Your task to perform on an android device: clear all cookies in the chrome app Image 0: 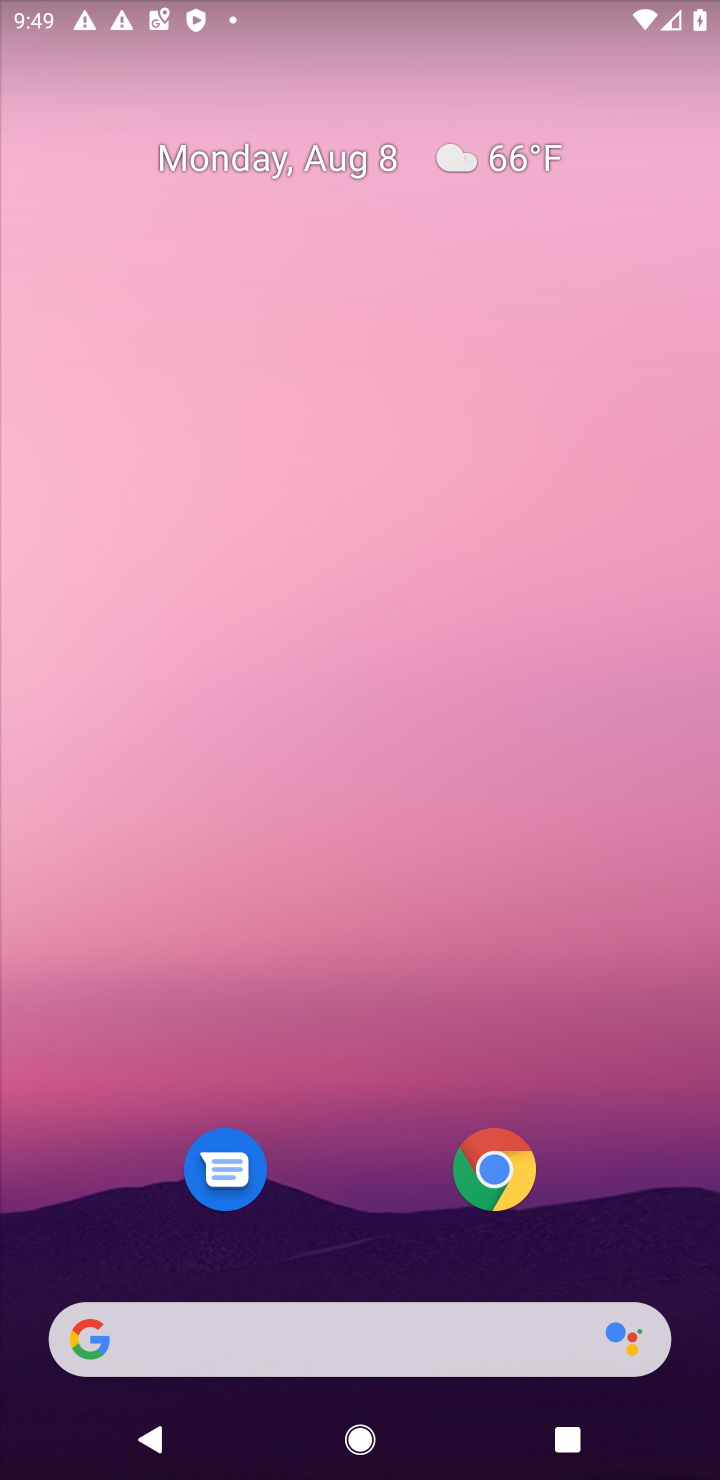
Step 0: click (493, 1159)
Your task to perform on an android device: clear all cookies in the chrome app Image 1: 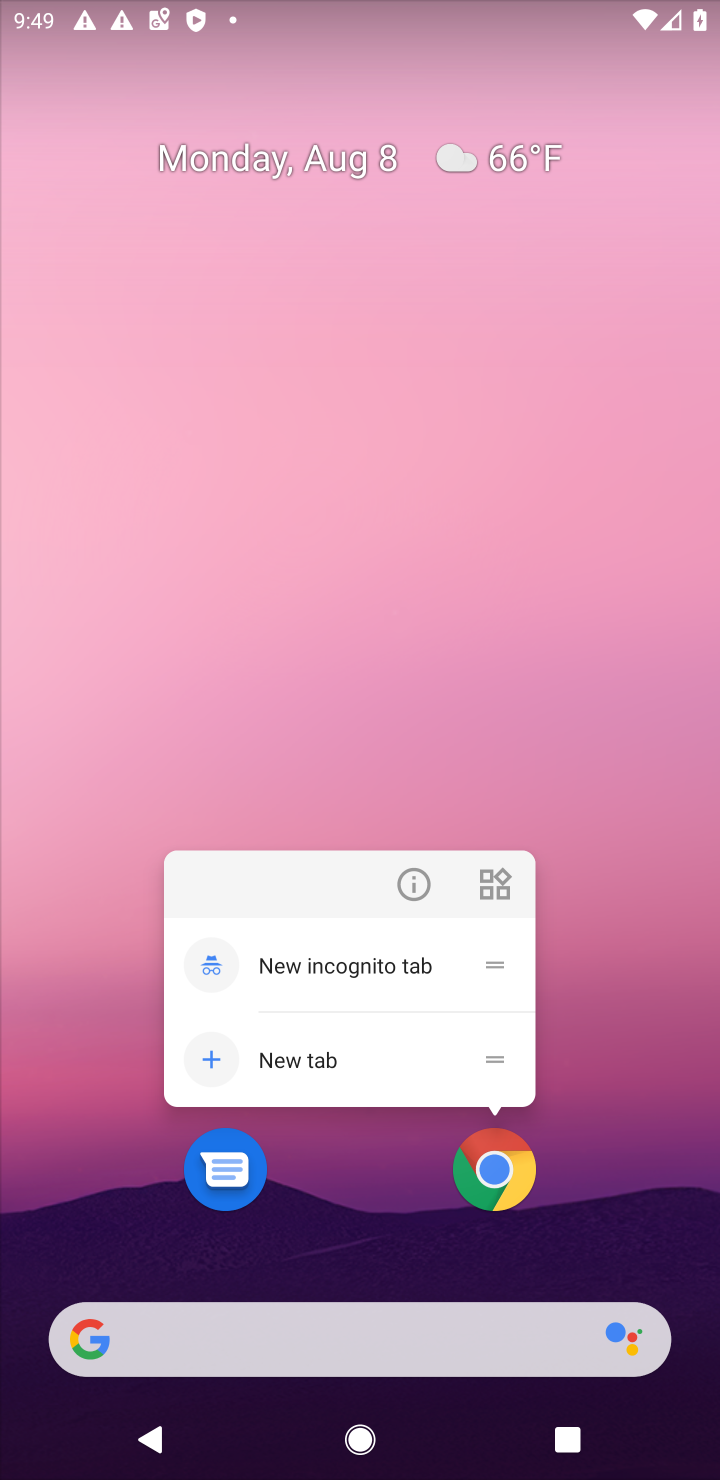
Step 1: click (495, 1157)
Your task to perform on an android device: clear all cookies in the chrome app Image 2: 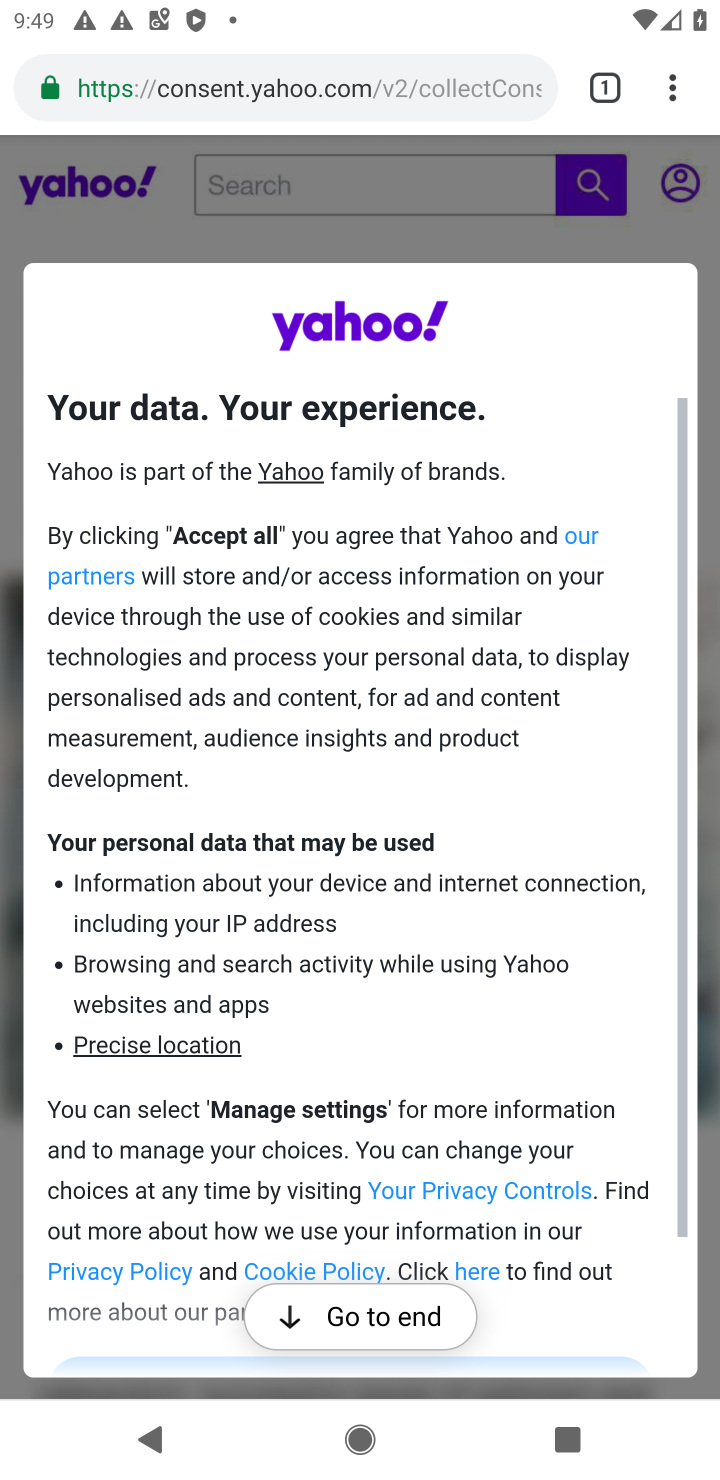
Step 2: task complete